Your task to perform on an android device: turn pop-ups off in chrome Image 0: 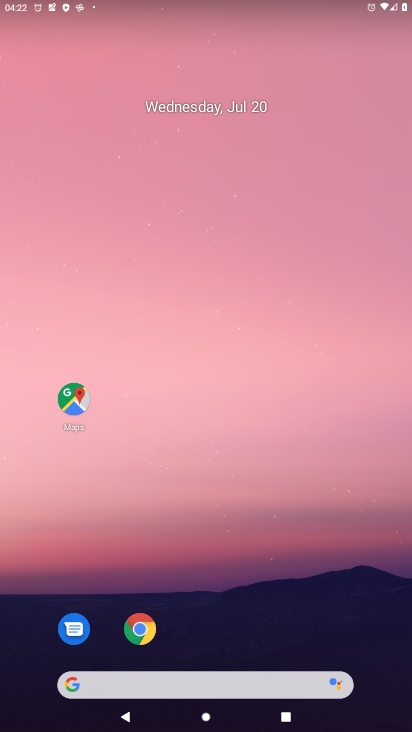
Step 0: click (138, 629)
Your task to perform on an android device: turn pop-ups off in chrome Image 1: 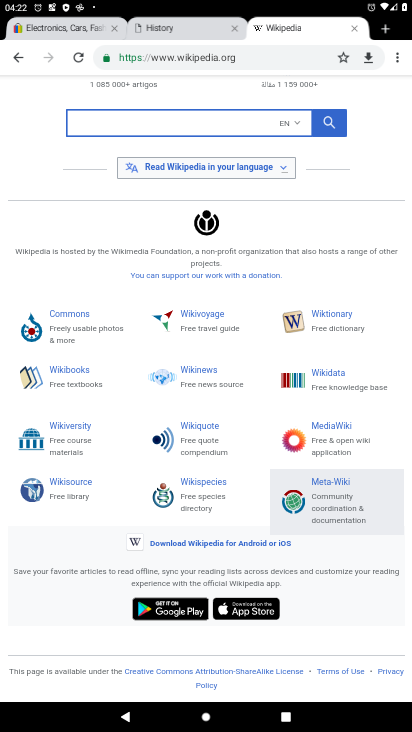
Step 1: click (396, 61)
Your task to perform on an android device: turn pop-ups off in chrome Image 2: 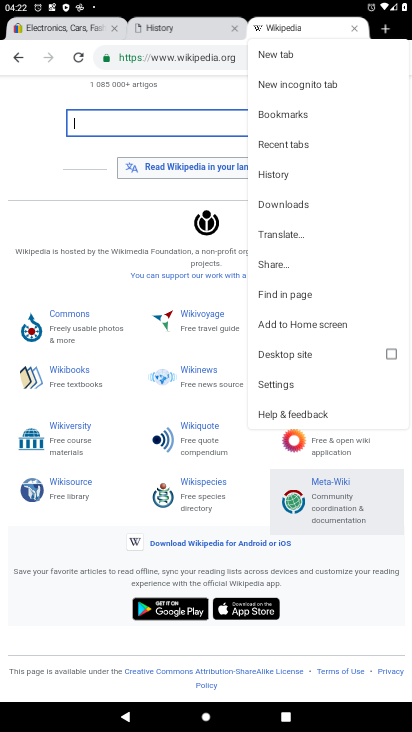
Step 2: click (282, 379)
Your task to perform on an android device: turn pop-ups off in chrome Image 3: 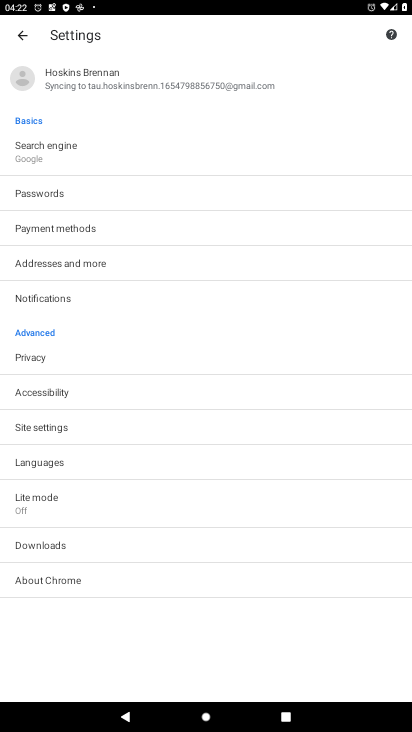
Step 3: click (42, 430)
Your task to perform on an android device: turn pop-ups off in chrome Image 4: 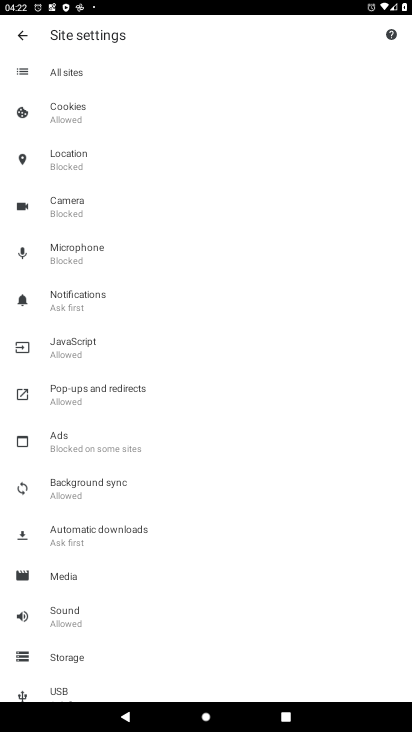
Step 4: click (66, 393)
Your task to perform on an android device: turn pop-ups off in chrome Image 5: 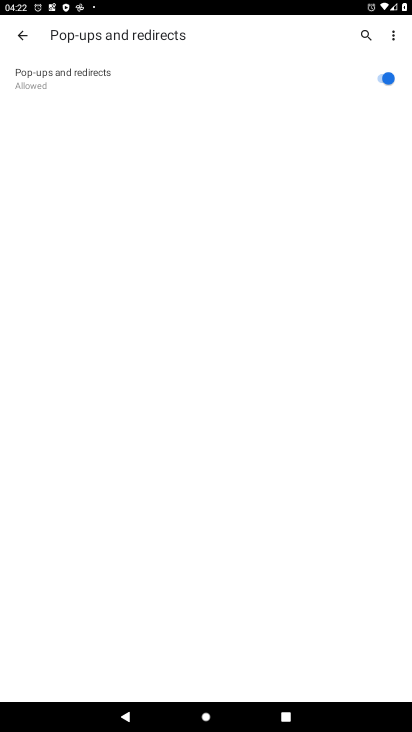
Step 5: click (383, 71)
Your task to perform on an android device: turn pop-ups off in chrome Image 6: 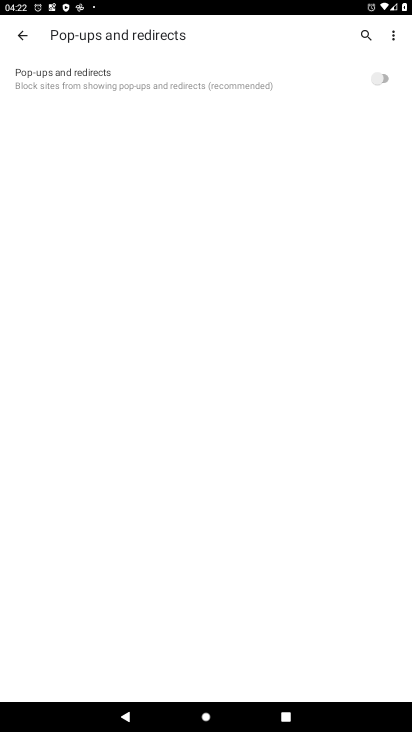
Step 6: task complete